Your task to perform on an android device: What's the weather going to be this weekend? Image 0: 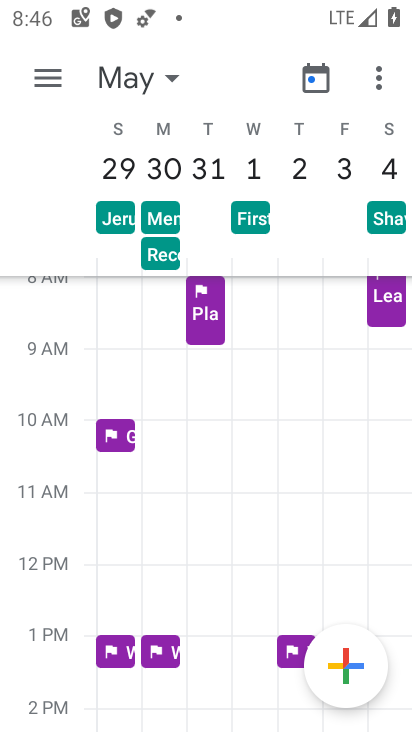
Step 0: press home button
Your task to perform on an android device: What's the weather going to be this weekend? Image 1: 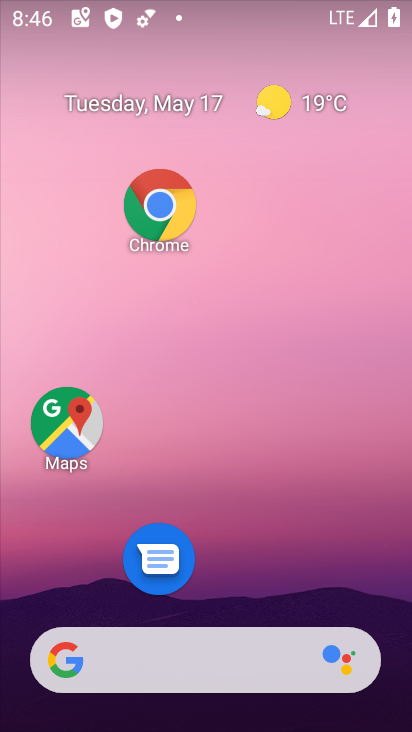
Step 1: drag from (200, 594) to (184, 99)
Your task to perform on an android device: What's the weather going to be this weekend? Image 2: 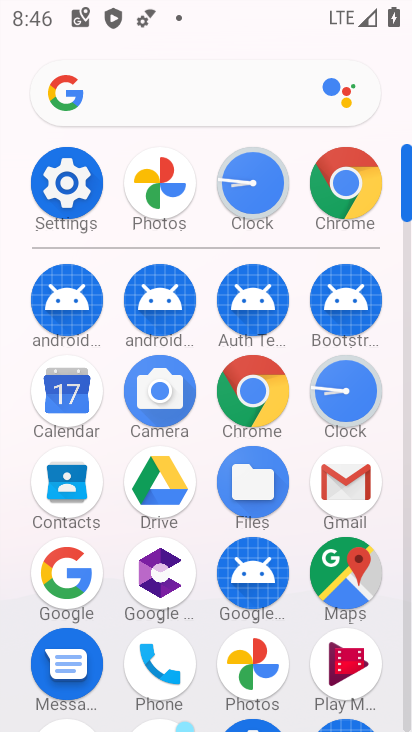
Step 2: click (222, 100)
Your task to perform on an android device: What's the weather going to be this weekend? Image 3: 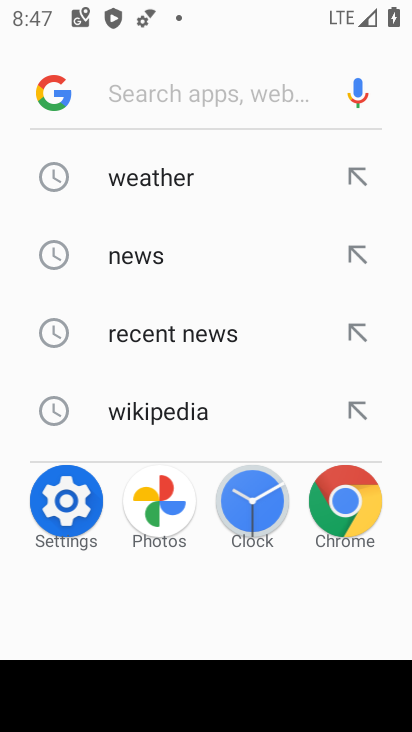
Step 3: type "weather going to be this weekend"
Your task to perform on an android device: What's the weather going to be this weekend? Image 4: 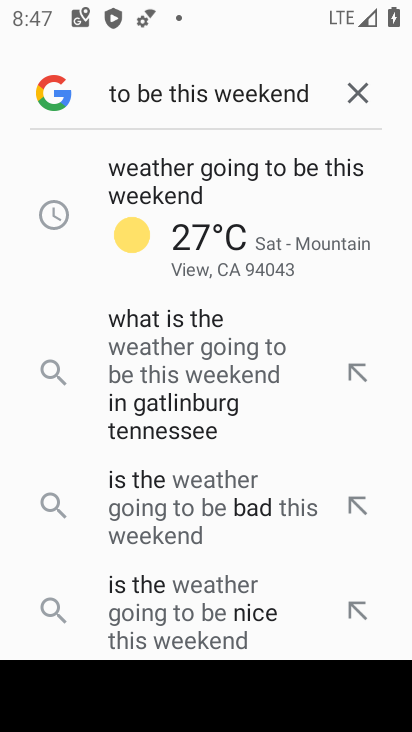
Step 4: click (174, 197)
Your task to perform on an android device: What's the weather going to be this weekend? Image 5: 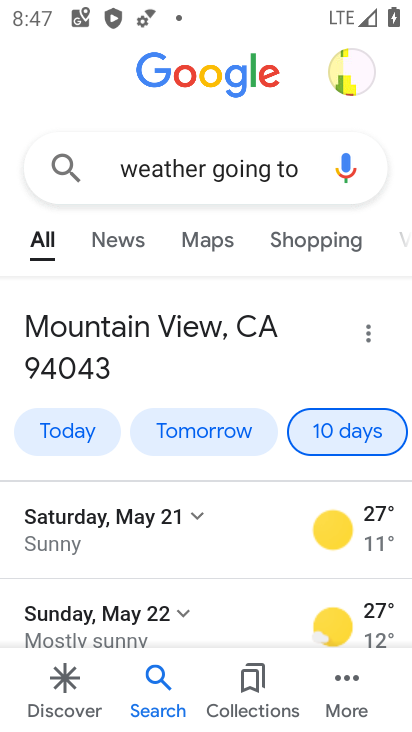
Step 5: task complete